Your task to perform on an android device: turn smart compose on in the gmail app Image 0: 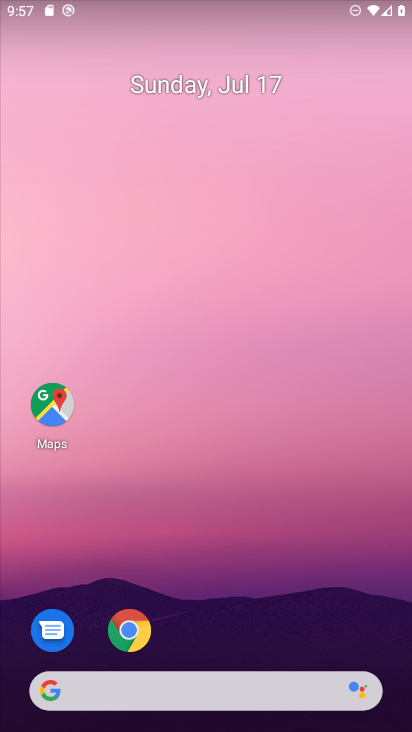
Step 0: drag from (124, 636) to (136, 302)
Your task to perform on an android device: turn smart compose on in the gmail app Image 1: 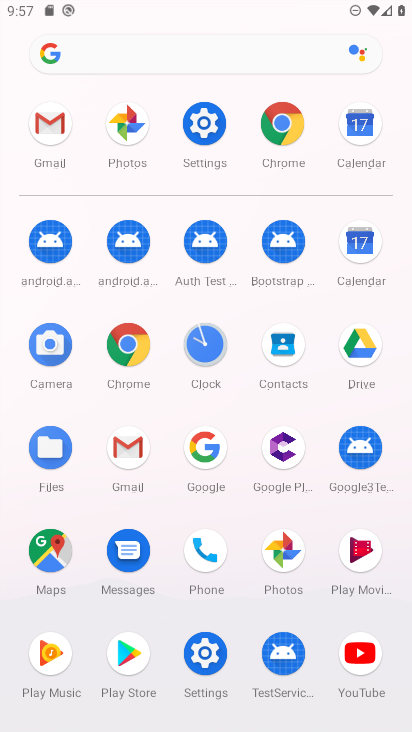
Step 1: click (49, 118)
Your task to perform on an android device: turn smart compose on in the gmail app Image 2: 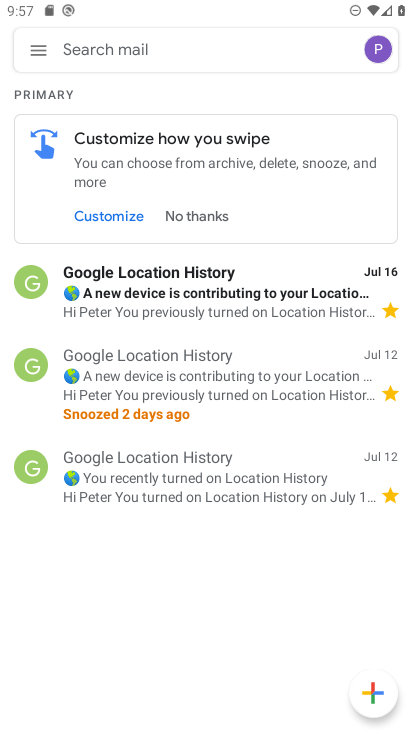
Step 2: click (33, 40)
Your task to perform on an android device: turn smart compose on in the gmail app Image 3: 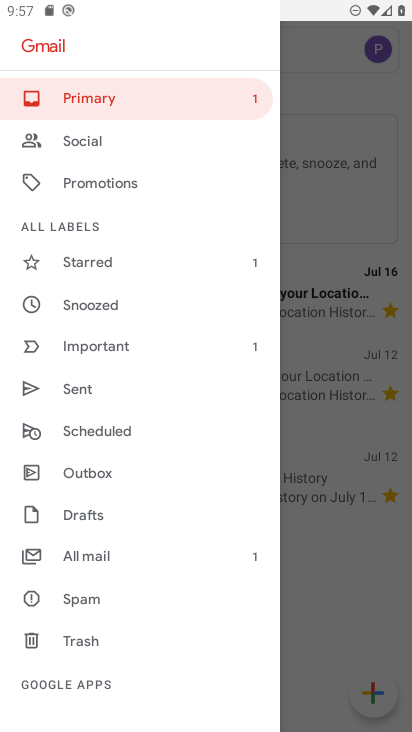
Step 3: drag from (102, 597) to (150, 276)
Your task to perform on an android device: turn smart compose on in the gmail app Image 4: 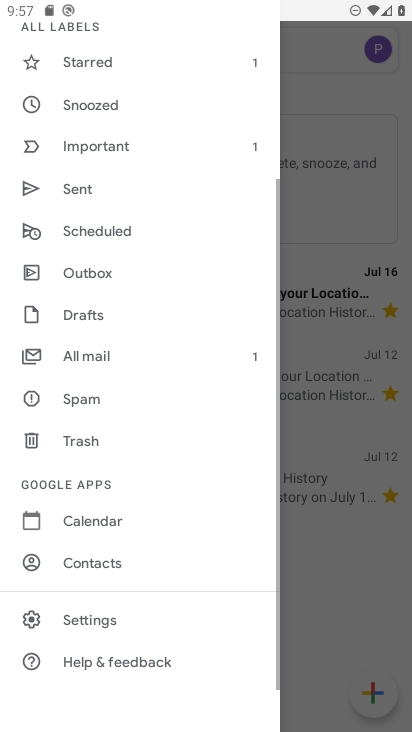
Step 4: click (118, 609)
Your task to perform on an android device: turn smart compose on in the gmail app Image 5: 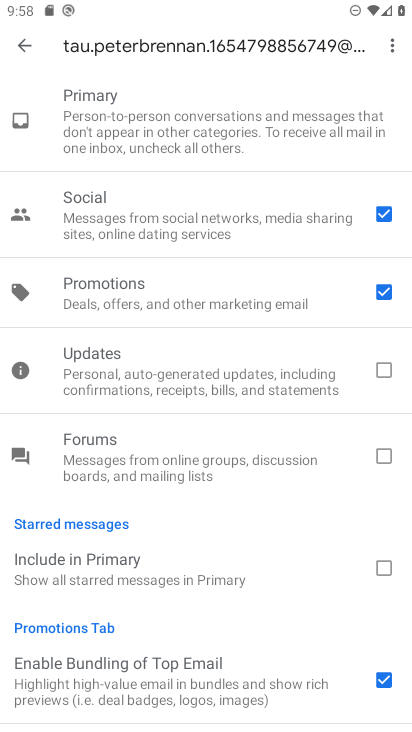
Step 5: drag from (230, 647) to (228, 85)
Your task to perform on an android device: turn smart compose on in the gmail app Image 6: 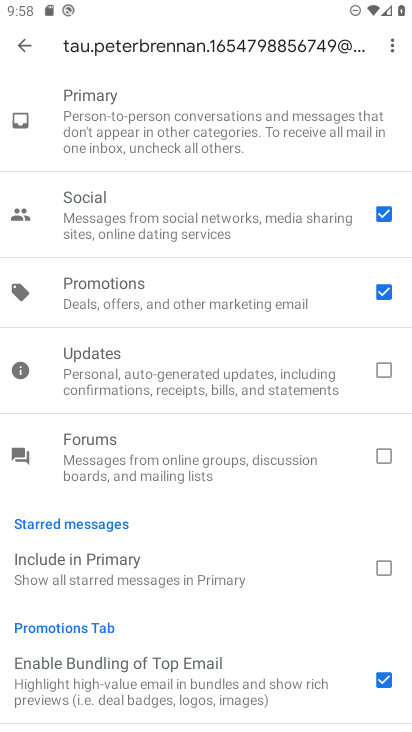
Step 6: click (24, 36)
Your task to perform on an android device: turn smart compose on in the gmail app Image 7: 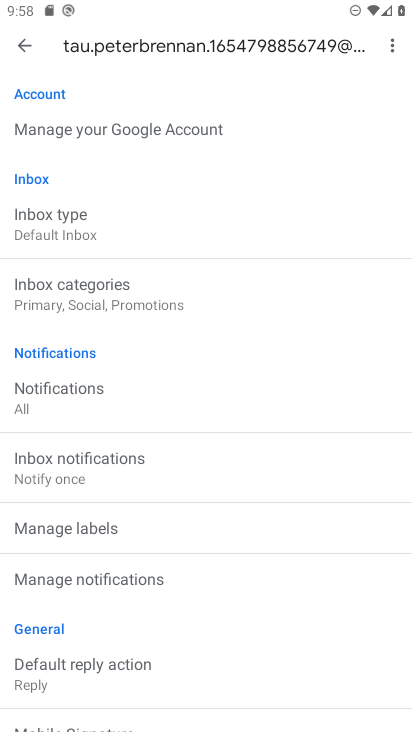
Step 7: click (96, 226)
Your task to perform on an android device: turn smart compose on in the gmail app Image 8: 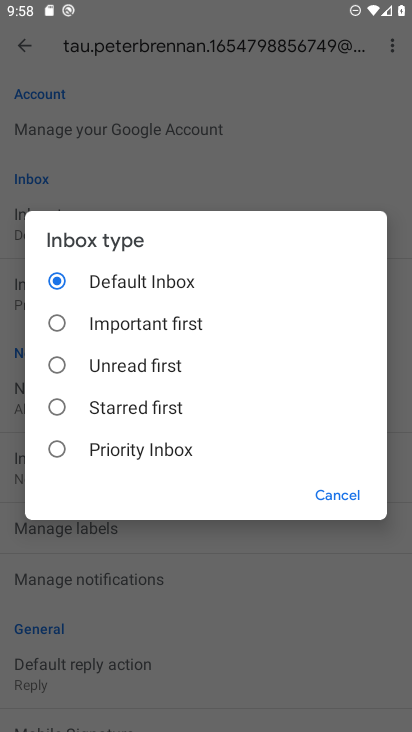
Step 8: click (160, 154)
Your task to perform on an android device: turn smart compose on in the gmail app Image 9: 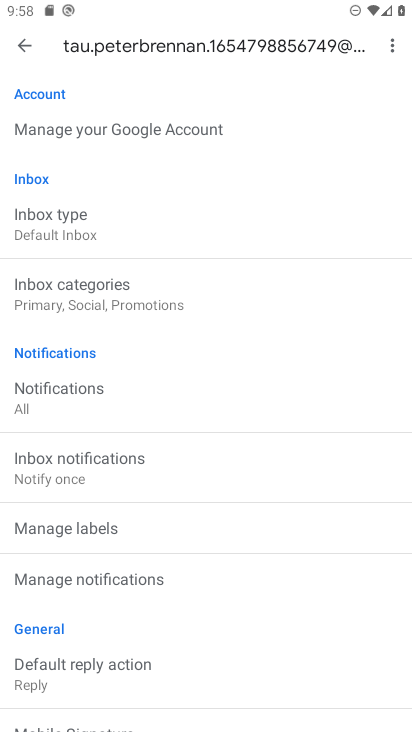
Step 9: click (29, 31)
Your task to perform on an android device: turn smart compose on in the gmail app Image 10: 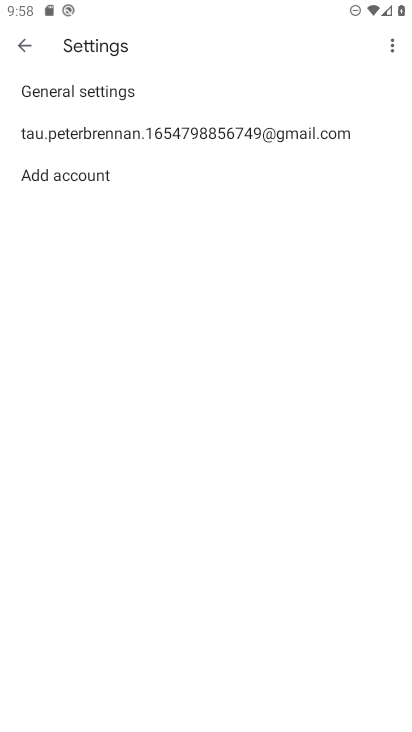
Step 10: click (118, 142)
Your task to perform on an android device: turn smart compose on in the gmail app Image 11: 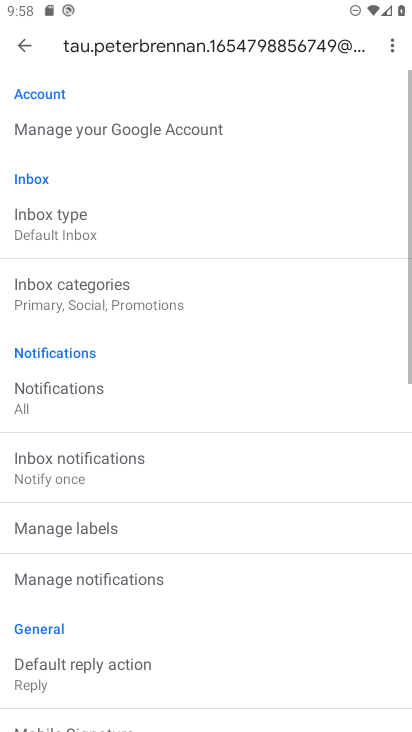
Step 11: task complete